Your task to perform on an android device: Search for vegetarian restaurants on Maps Image 0: 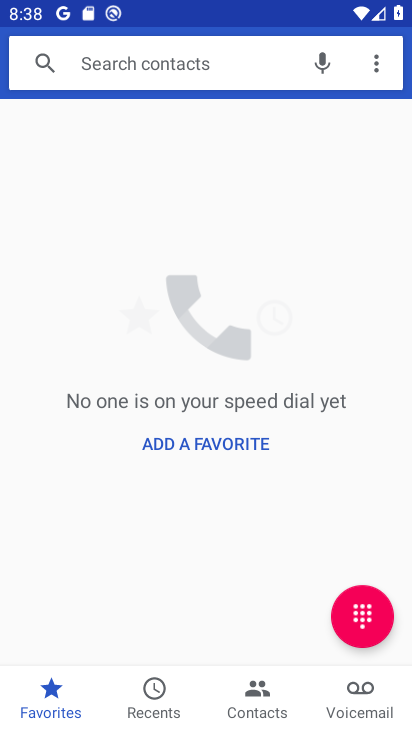
Step 0: press home button
Your task to perform on an android device: Search for vegetarian restaurants on Maps Image 1: 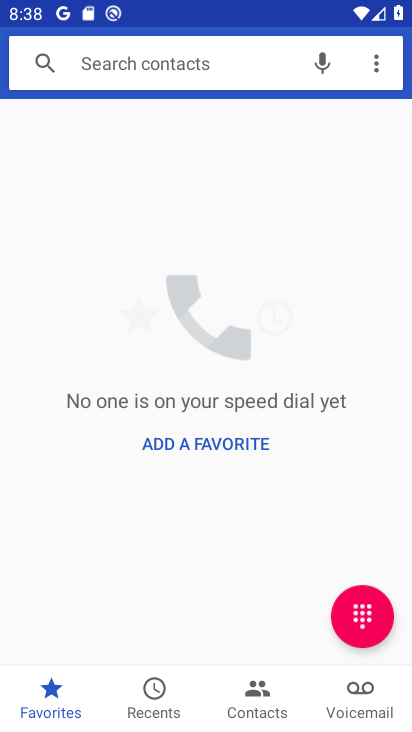
Step 1: press home button
Your task to perform on an android device: Search for vegetarian restaurants on Maps Image 2: 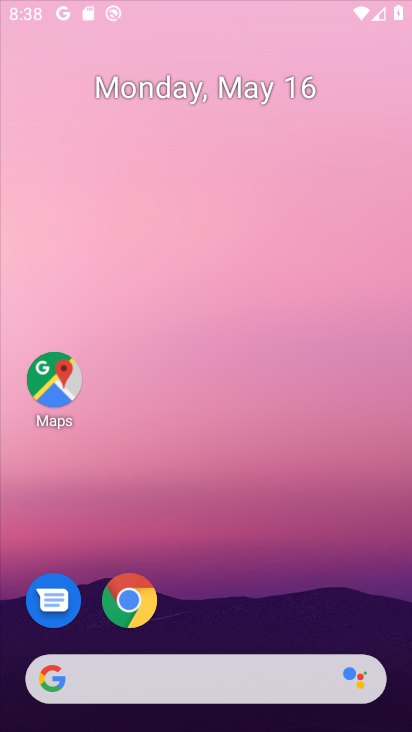
Step 2: press home button
Your task to perform on an android device: Search for vegetarian restaurants on Maps Image 3: 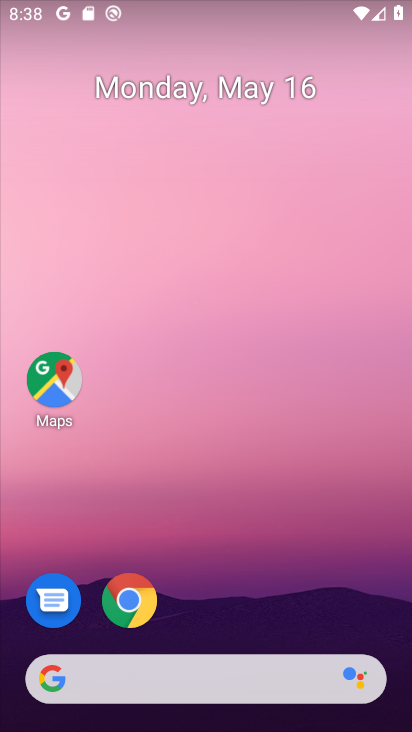
Step 3: drag from (253, 653) to (143, 306)
Your task to perform on an android device: Search for vegetarian restaurants on Maps Image 4: 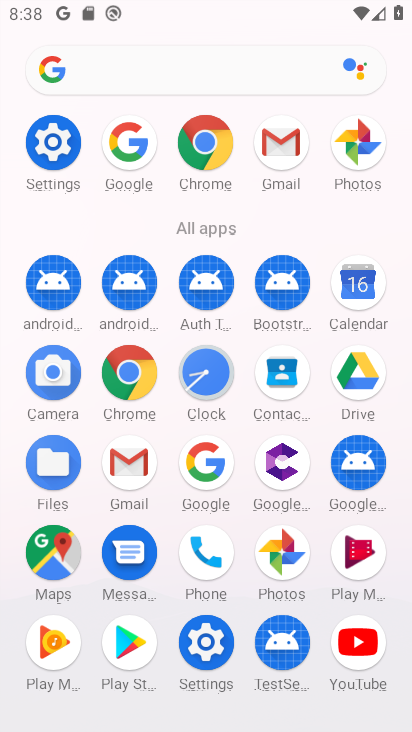
Step 4: click (53, 536)
Your task to perform on an android device: Search for vegetarian restaurants on Maps Image 5: 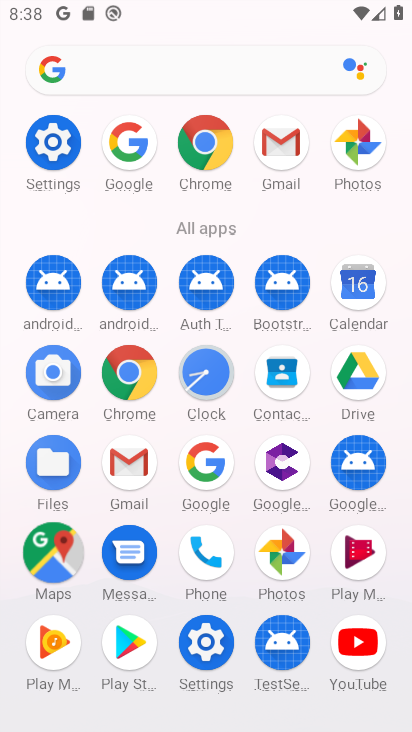
Step 5: click (53, 536)
Your task to perform on an android device: Search for vegetarian restaurants on Maps Image 6: 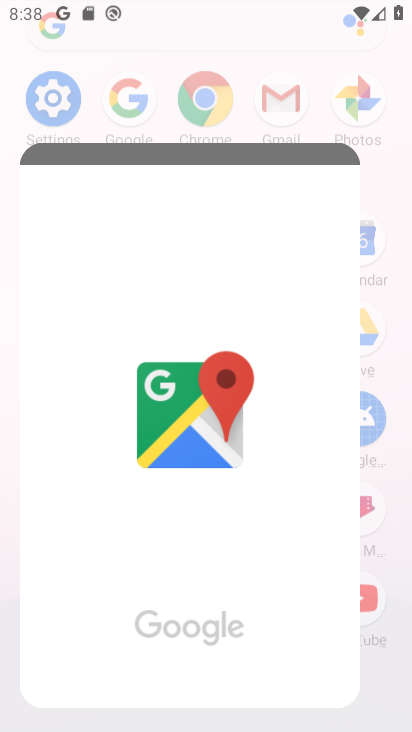
Step 6: click (51, 537)
Your task to perform on an android device: Search for vegetarian restaurants on Maps Image 7: 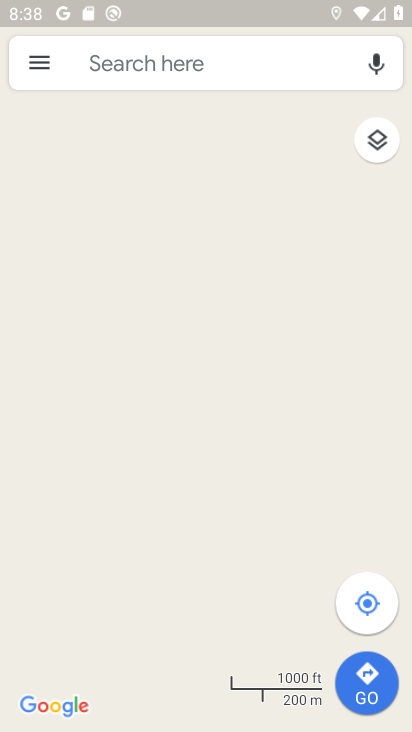
Step 7: click (108, 75)
Your task to perform on an android device: Search for vegetarian restaurants on Maps Image 8: 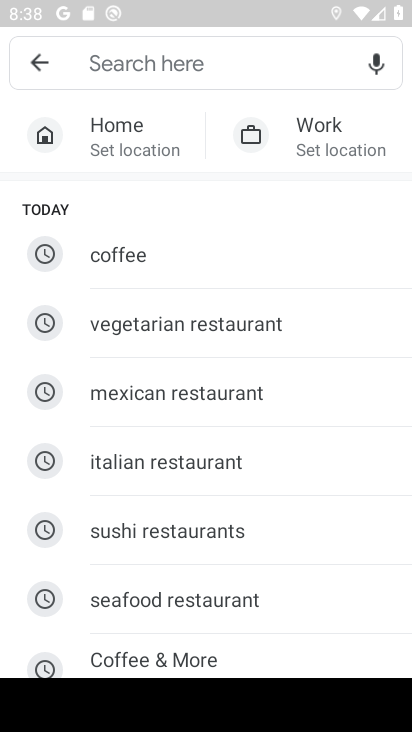
Step 8: click (187, 319)
Your task to perform on an android device: Search for vegetarian restaurants on Maps Image 9: 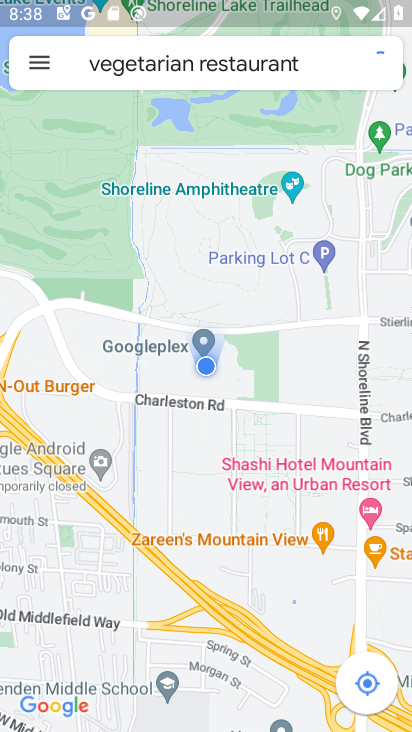
Step 9: task complete